Your task to perform on an android device: What's on my calendar tomorrow? Image 0: 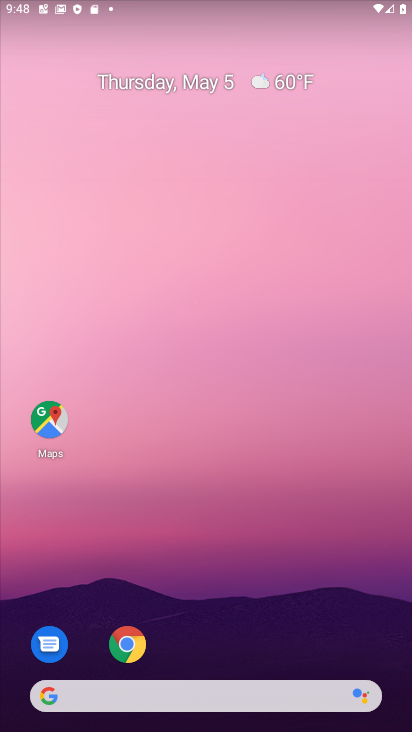
Step 0: drag from (243, 655) to (242, 181)
Your task to perform on an android device: What's on my calendar tomorrow? Image 1: 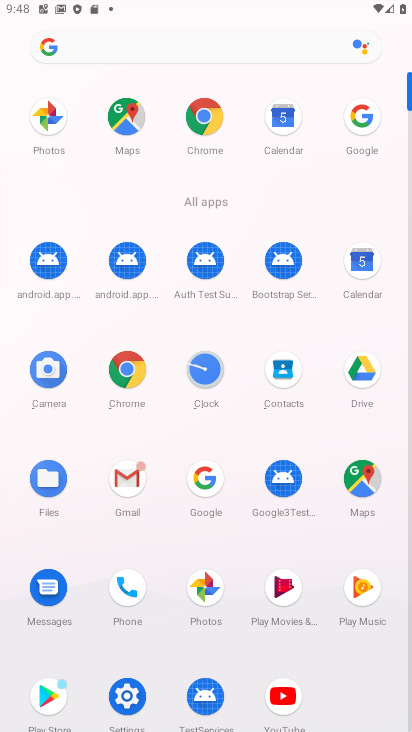
Step 1: click (357, 271)
Your task to perform on an android device: What's on my calendar tomorrow? Image 2: 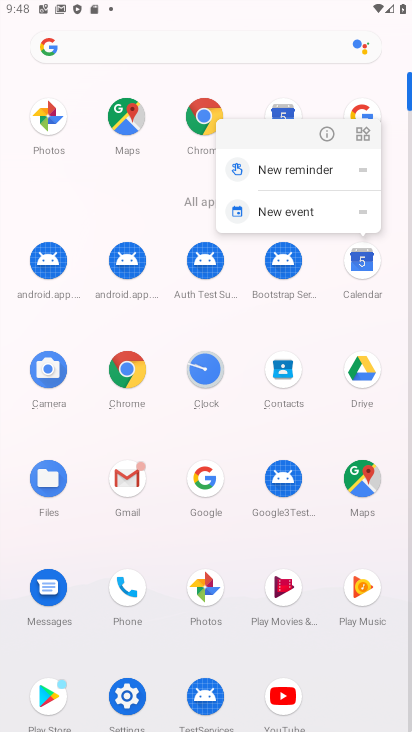
Step 2: click (359, 271)
Your task to perform on an android device: What's on my calendar tomorrow? Image 3: 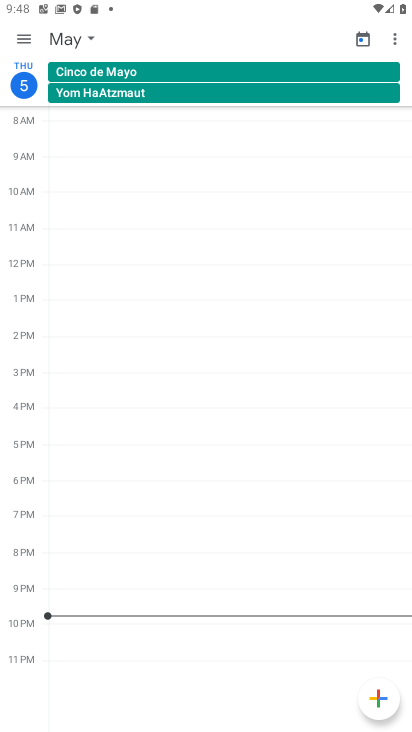
Step 3: click (73, 41)
Your task to perform on an android device: What's on my calendar tomorrow? Image 4: 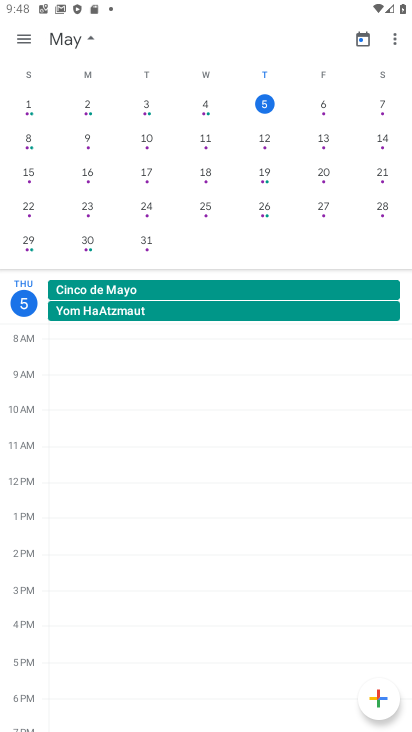
Step 4: click (324, 112)
Your task to perform on an android device: What's on my calendar tomorrow? Image 5: 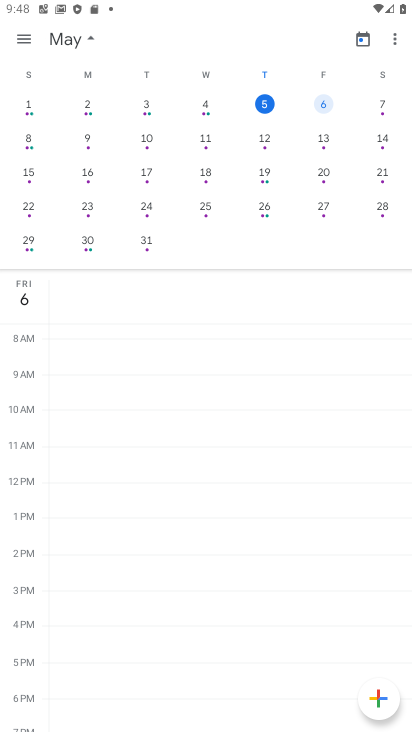
Step 5: task complete